Your task to perform on an android device: delete browsing data in the chrome app Image 0: 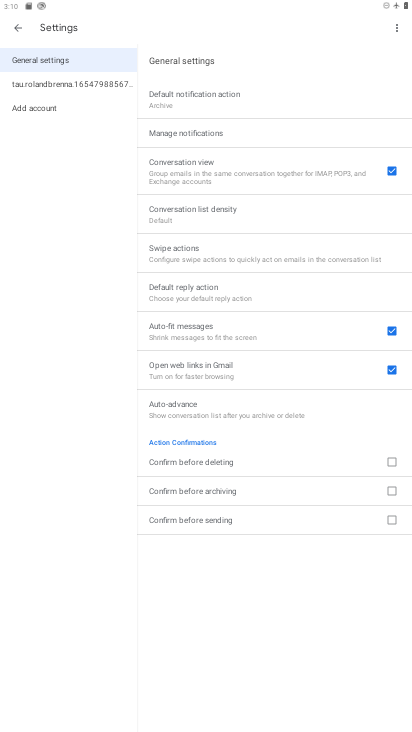
Step 0: click (11, 29)
Your task to perform on an android device: delete browsing data in the chrome app Image 1: 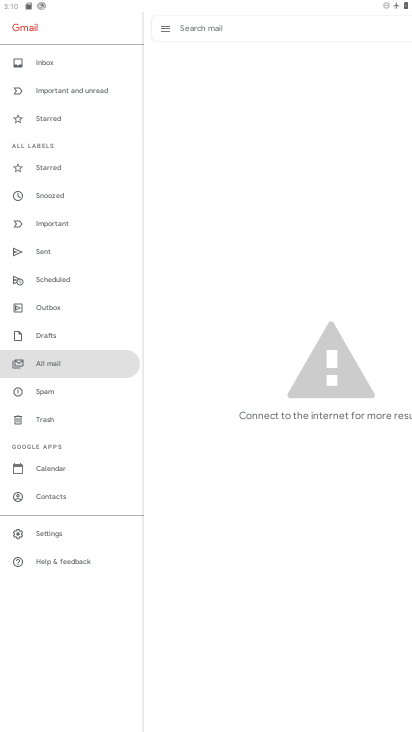
Step 1: press home button
Your task to perform on an android device: delete browsing data in the chrome app Image 2: 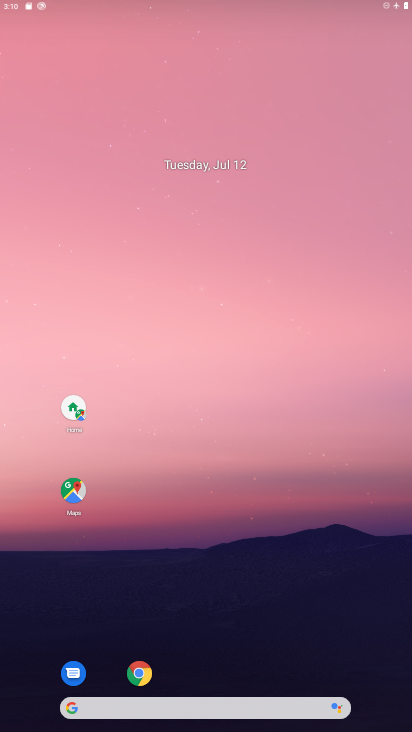
Step 2: drag from (269, 573) to (269, 286)
Your task to perform on an android device: delete browsing data in the chrome app Image 3: 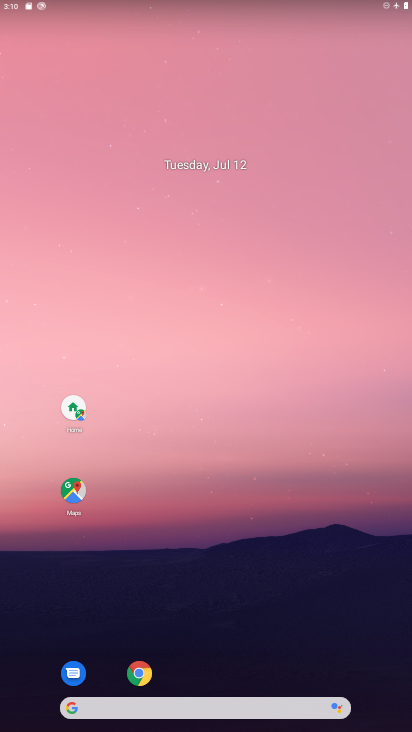
Step 3: drag from (188, 657) to (189, 207)
Your task to perform on an android device: delete browsing data in the chrome app Image 4: 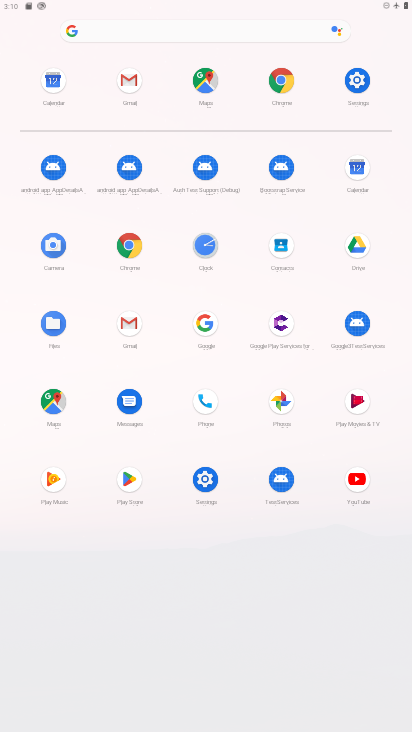
Step 4: click (289, 80)
Your task to perform on an android device: delete browsing data in the chrome app Image 5: 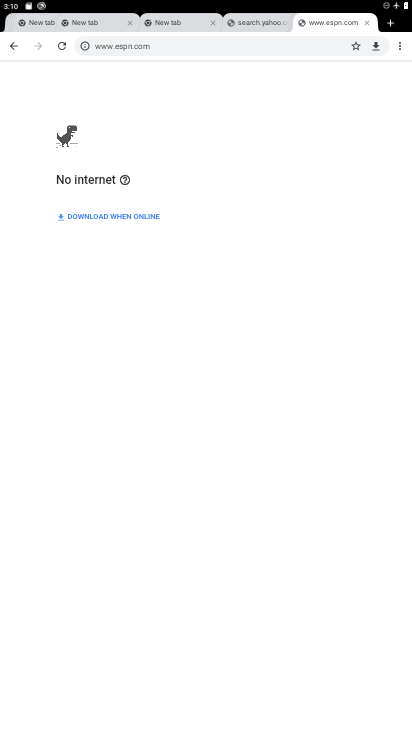
Step 5: click (402, 55)
Your task to perform on an android device: delete browsing data in the chrome app Image 6: 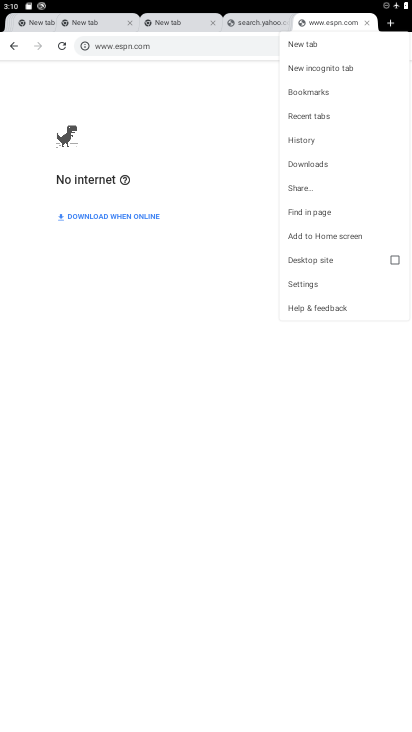
Step 6: click (293, 280)
Your task to perform on an android device: delete browsing data in the chrome app Image 7: 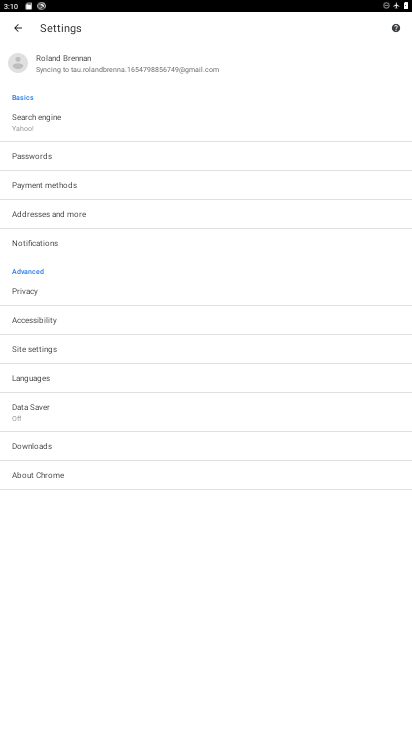
Step 7: click (44, 289)
Your task to perform on an android device: delete browsing data in the chrome app Image 8: 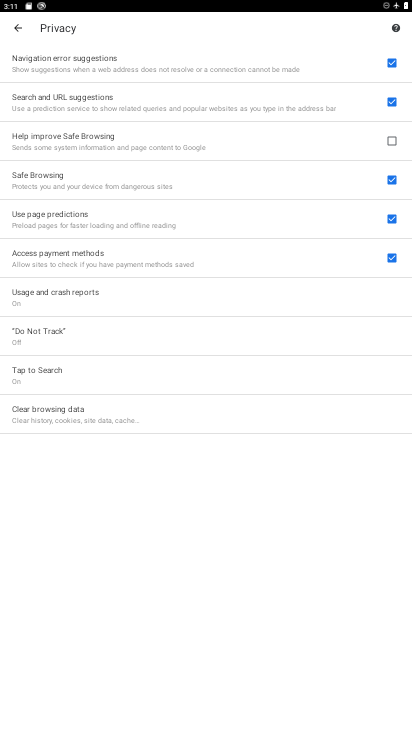
Step 8: click (123, 409)
Your task to perform on an android device: delete browsing data in the chrome app Image 9: 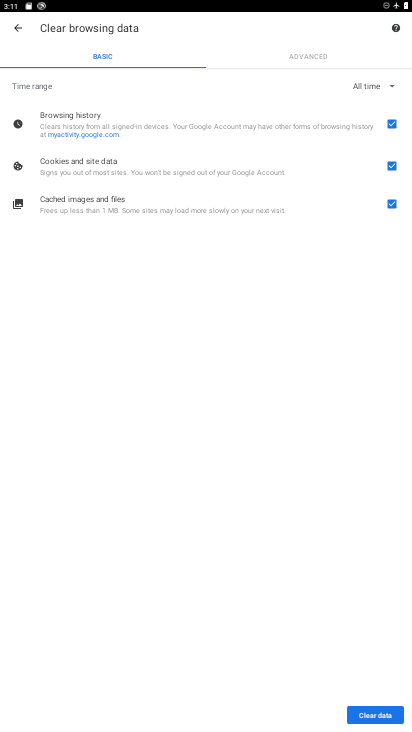
Step 9: click (378, 706)
Your task to perform on an android device: delete browsing data in the chrome app Image 10: 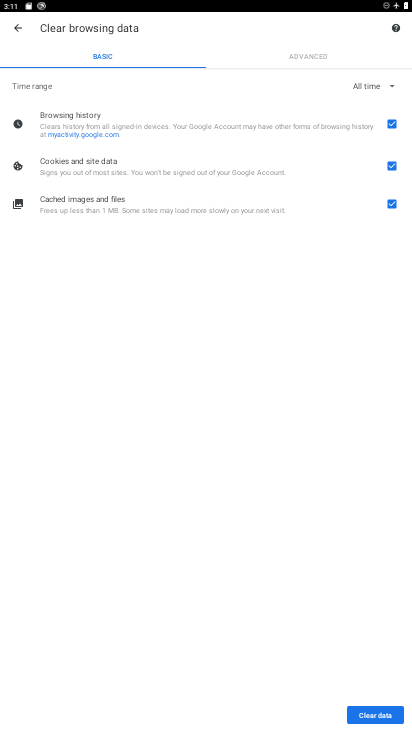
Step 10: click (378, 708)
Your task to perform on an android device: delete browsing data in the chrome app Image 11: 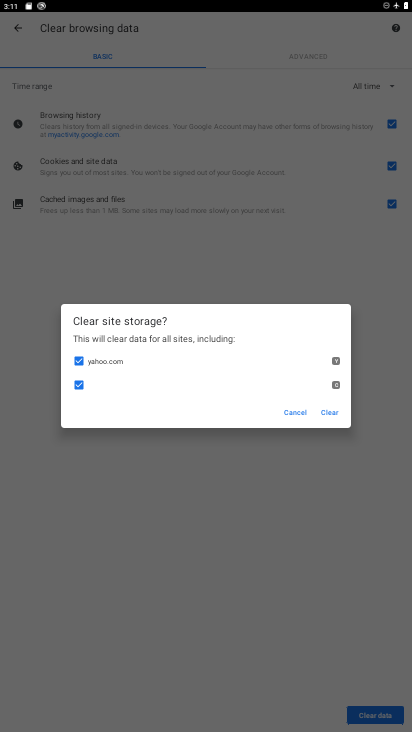
Step 11: click (328, 410)
Your task to perform on an android device: delete browsing data in the chrome app Image 12: 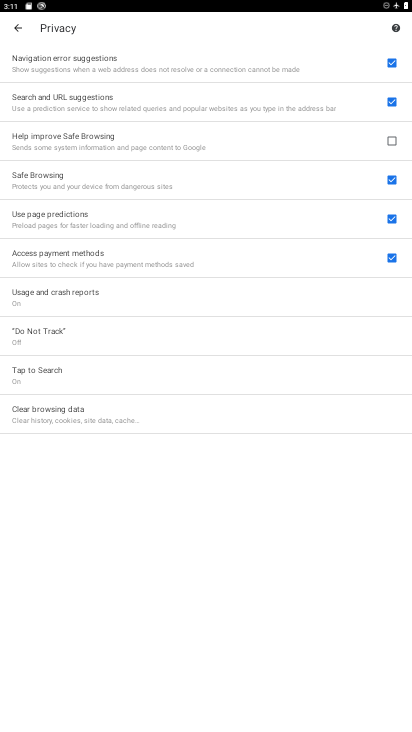
Step 12: task complete